Your task to perform on an android device: Clear the cart on amazon.com. Add "dell xps" to the cart on amazon.com Image 0: 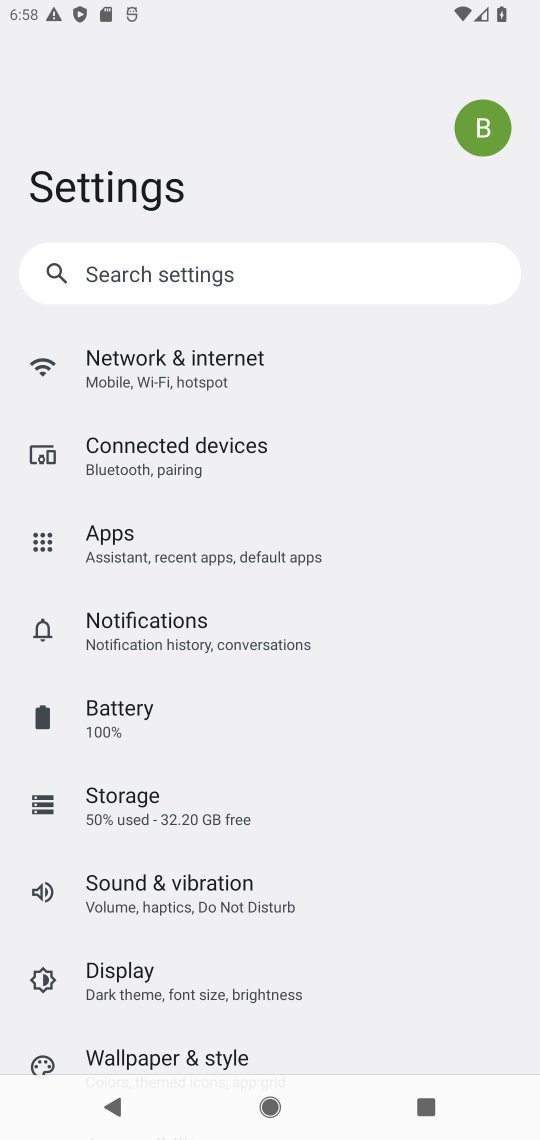
Step 0: press home button
Your task to perform on an android device: Clear the cart on amazon.com. Add "dell xps" to the cart on amazon.com Image 1: 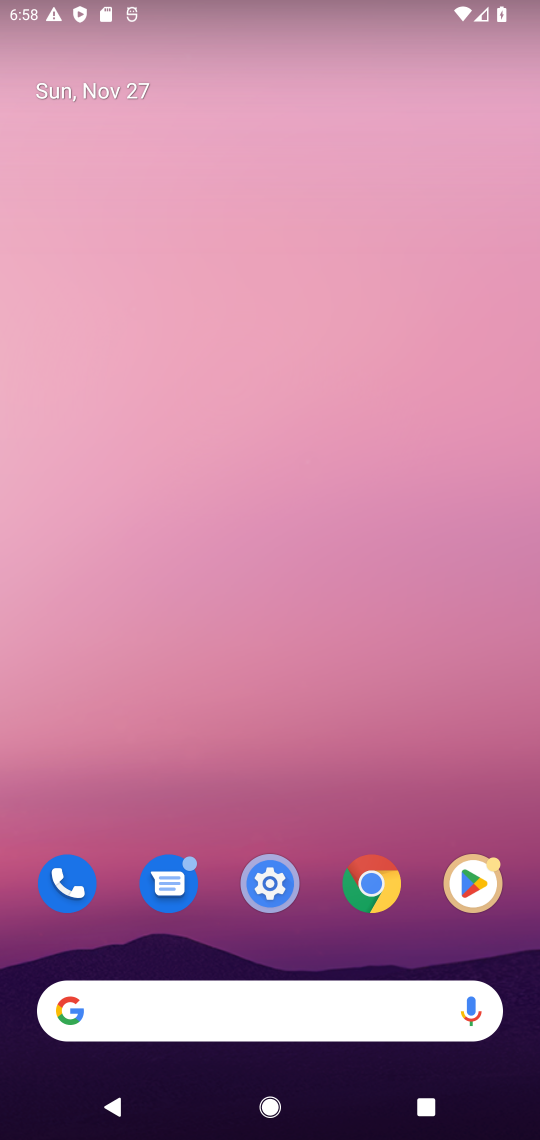
Step 1: click (377, 878)
Your task to perform on an android device: Clear the cart on amazon.com. Add "dell xps" to the cart on amazon.com Image 2: 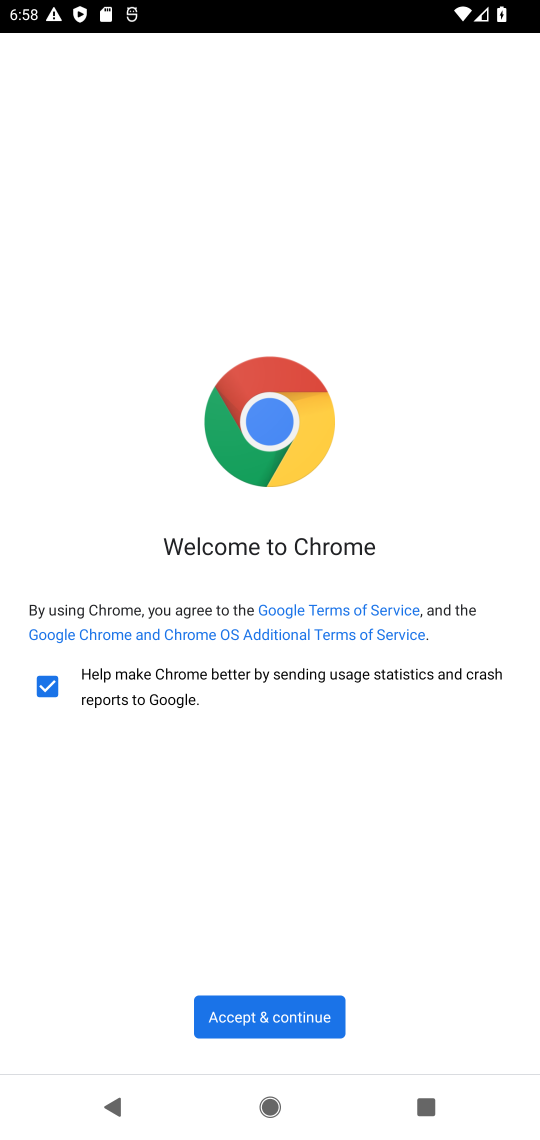
Step 2: click (269, 1037)
Your task to perform on an android device: Clear the cart on amazon.com. Add "dell xps" to the cart on amazon.com Image 3: 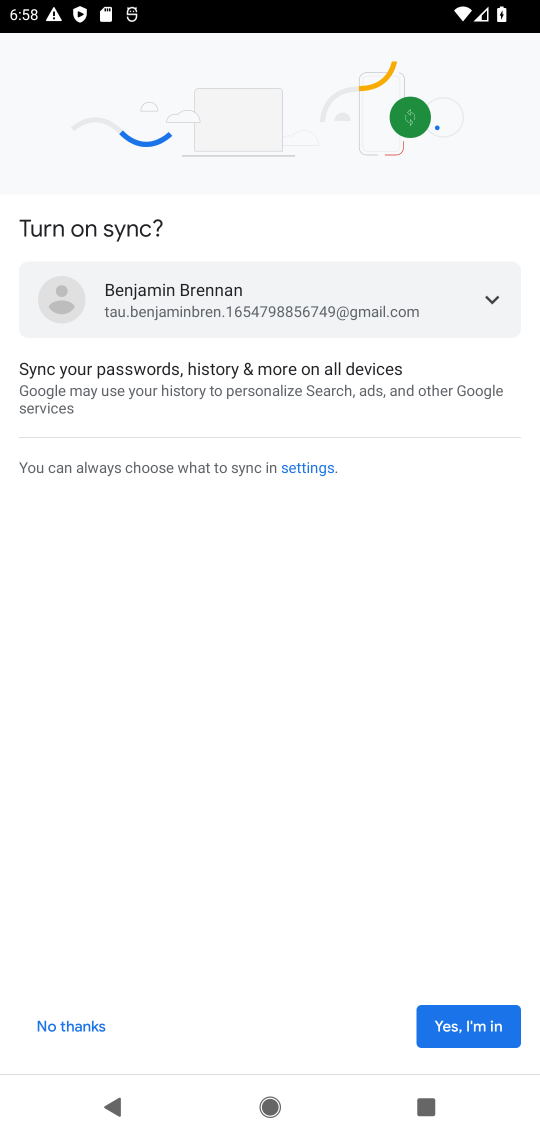
Step 3: click (438, 1021)
Your task to perform on an android device: Clear the cart on amazon.com. Add "dell xps" to the cart on amazon.com Image 4: 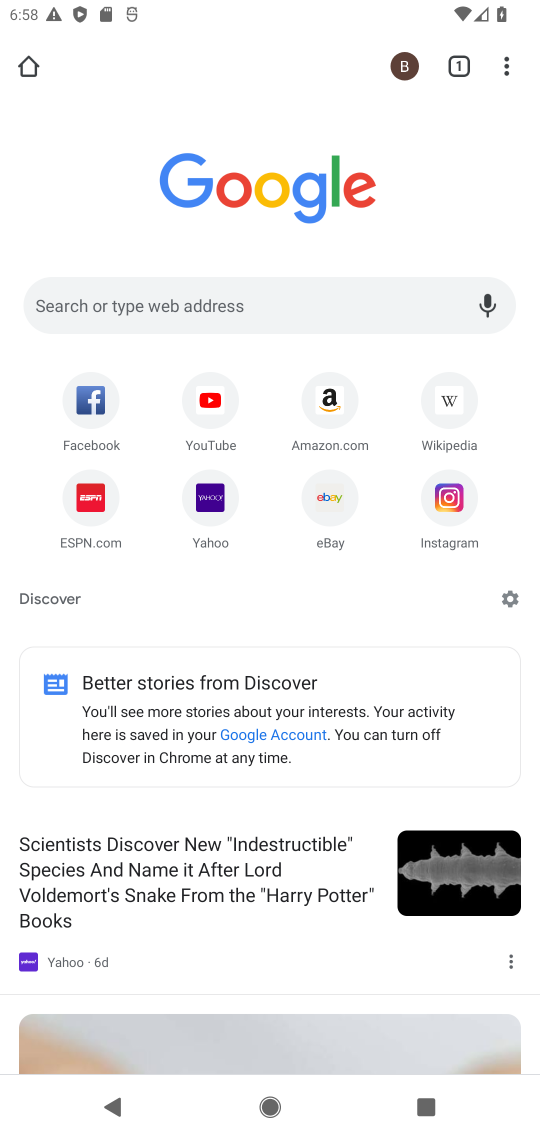
Step 4: click (234, 311)
Your task to perform on an android device: Clear the cart on amazon.com. Add "dell xps" to the cart on amazon.com Image 5: 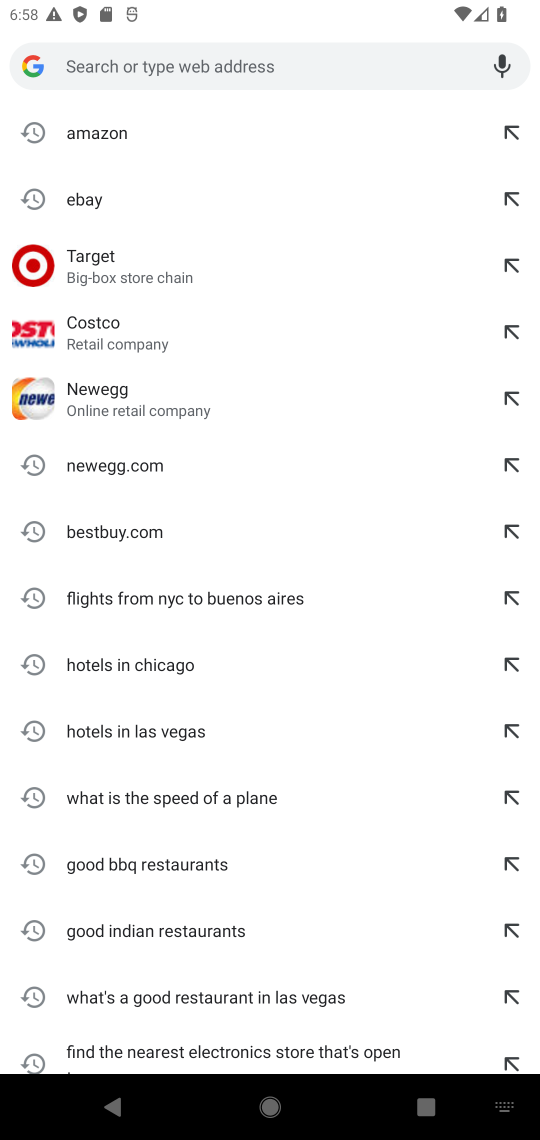
Step 5: type "amazon.com"
Your task to perform on an android device: Clear the cart on amazon.com. Add "dell xps" to the cart on amazon.com Image 6: 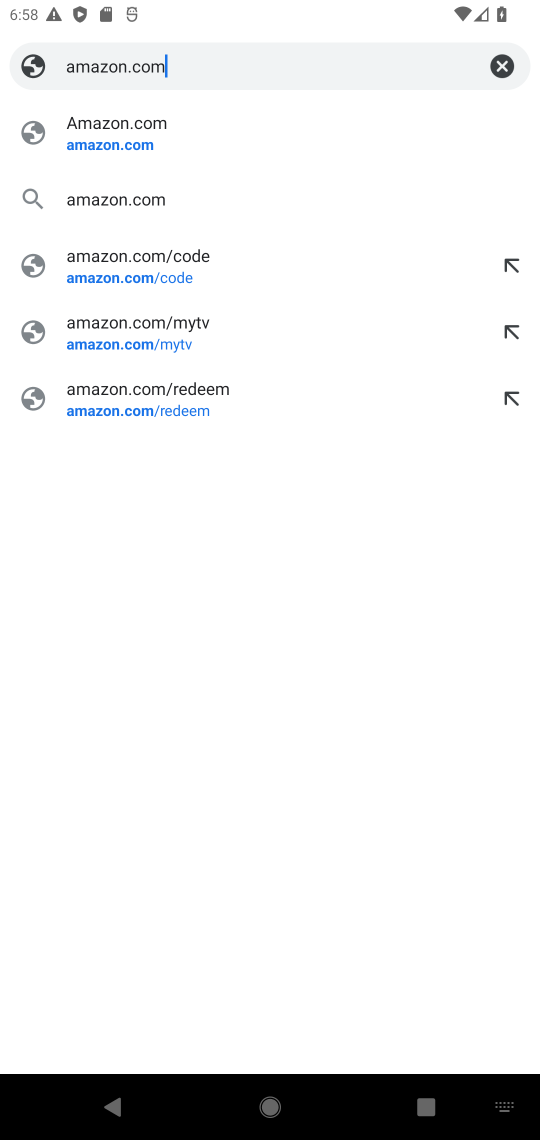
Step 6: click (127, 133)
Your task to perform on an android device: Clear the cart on amazon.com. Add "dell xps" to the cart on amazon.com Image 7: 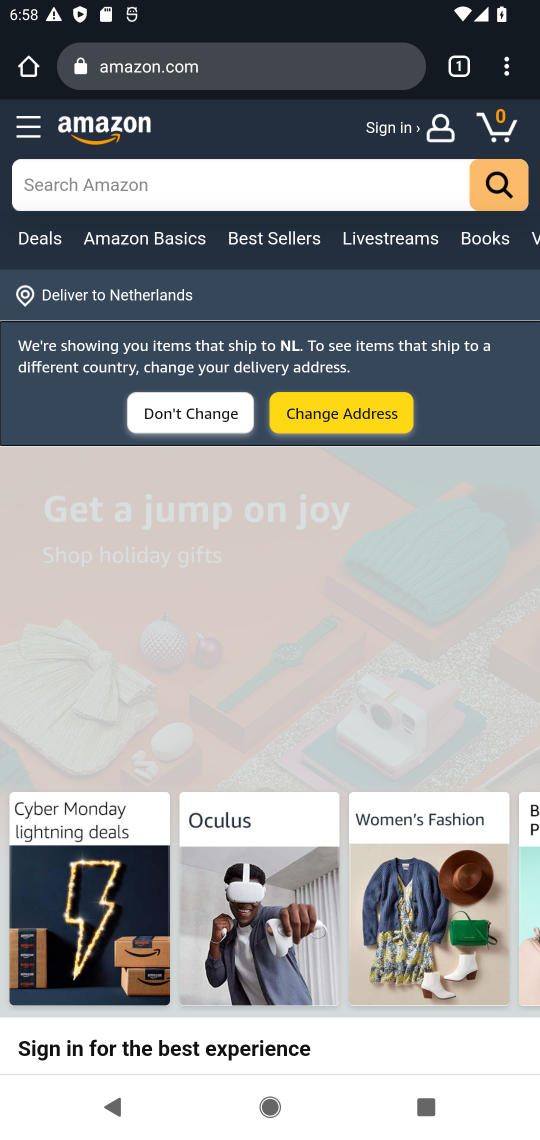
Step 7: click (492, 125)
Your task to perform on an android device: Clear the cart on amazon.com. Add "dell xps" to the cart on amazon.com Image 8: 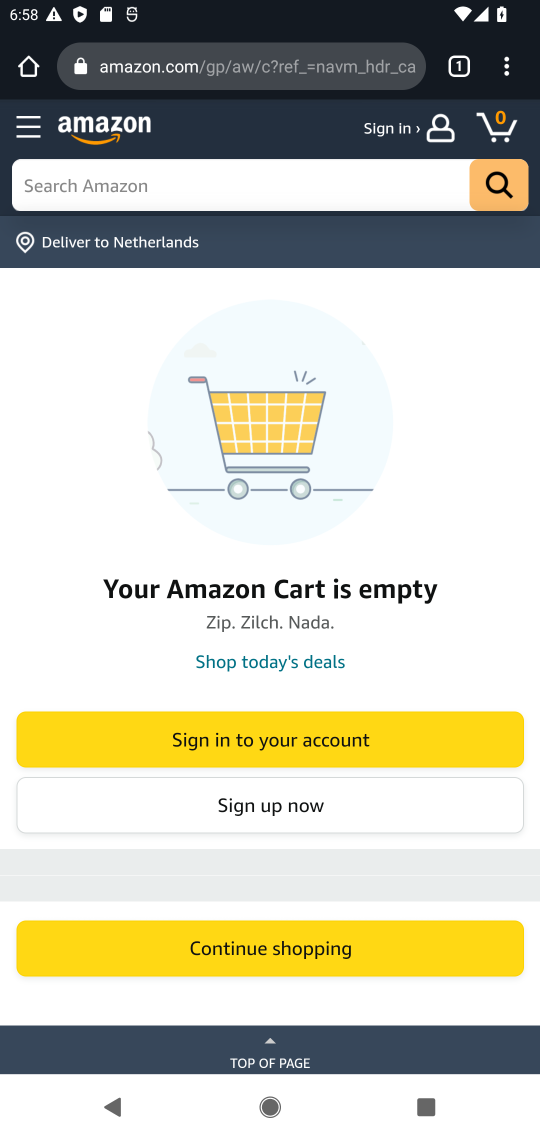
Step 8: click (213, 174)
Your task to perform on an android device: Clear the cart on amazon.com. Add "dell xps" to the cart on amazon.com Image 9: 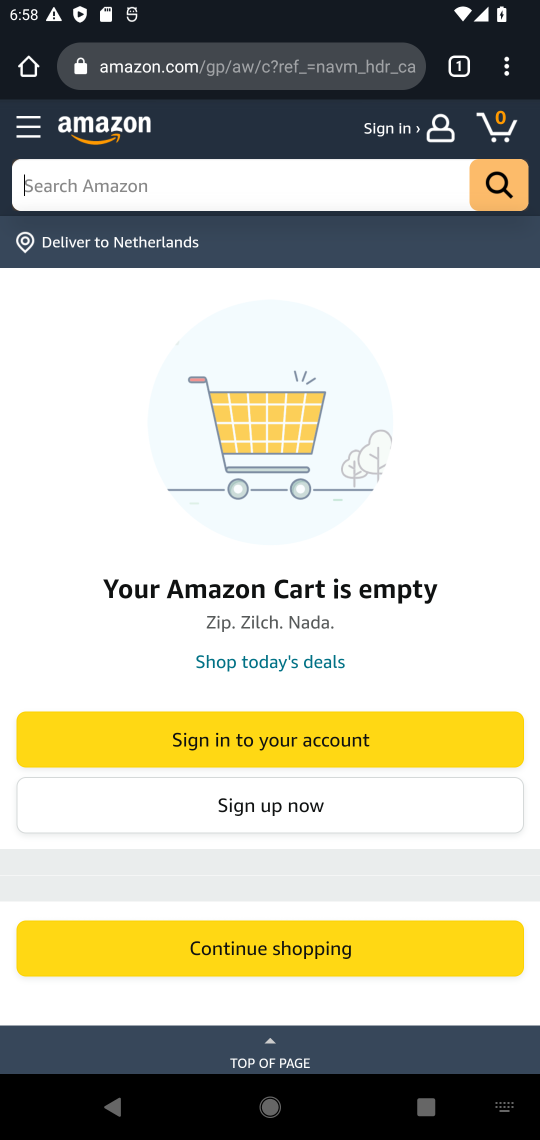
Step 9: type "dell xps"
Your task to perform on an android device: Clear the cart on amazon.com. Add "dell xps" to the cart on amazon.com Image 10: 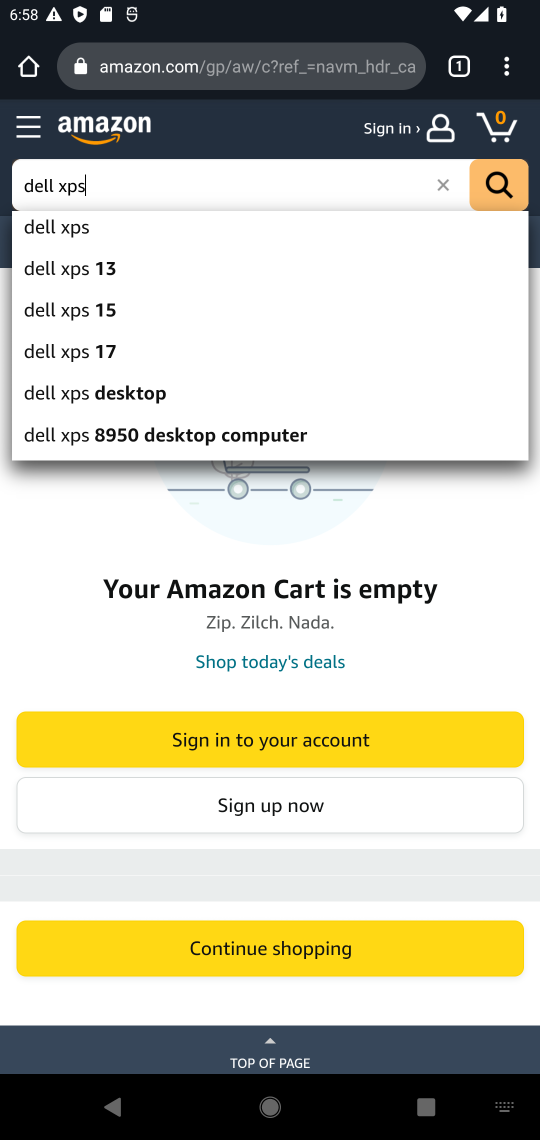
Step 10: click (63, 235)
Your task to perform on an android device: Clear the cart on amazon.com. Add "dell xps" to the cart on amazon.com Image 11: 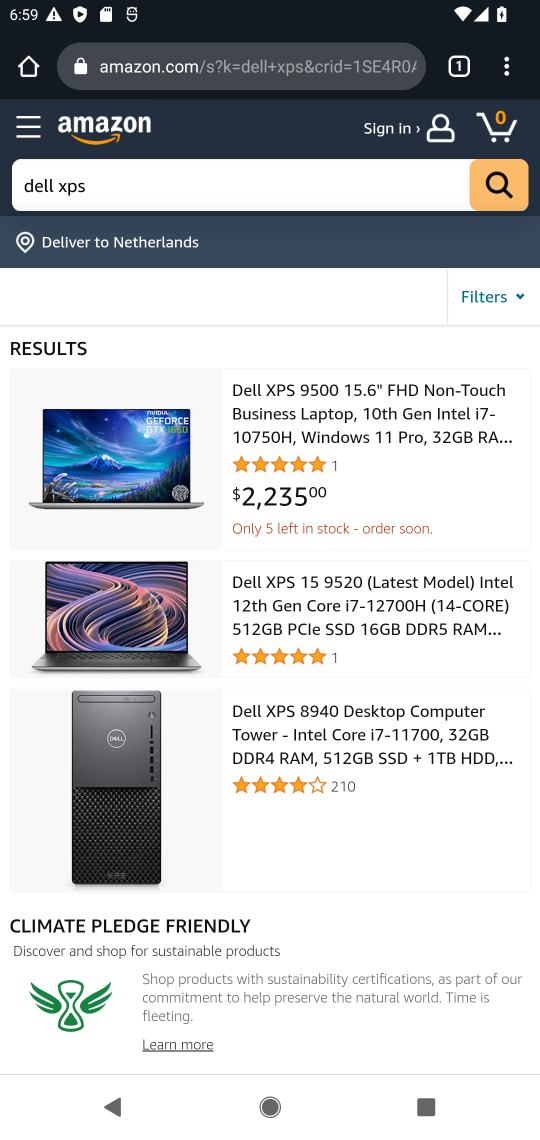
Step 11: click (345, 416)
Your task to perform on an android device: Clear the cart on amazon.com. Add "dell xps" to the cart on amazon.com Image 12: 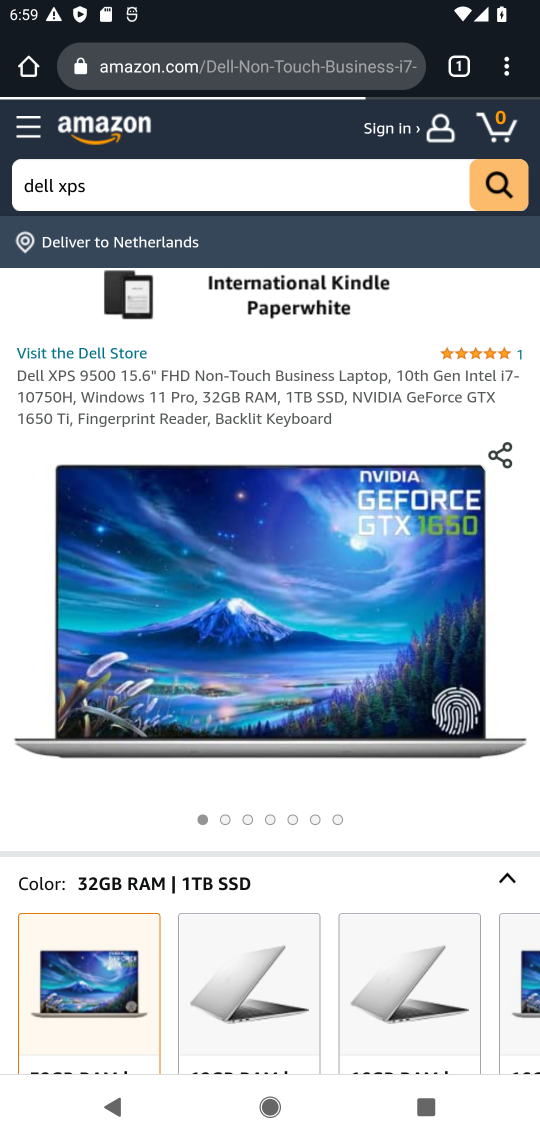
Step 12: drag from (330, 897) to (328, 430)
Your task to perform on an android device: Clear the cart on amazon.com. Add "dell xps" to the cart on amazon.com Image 13: 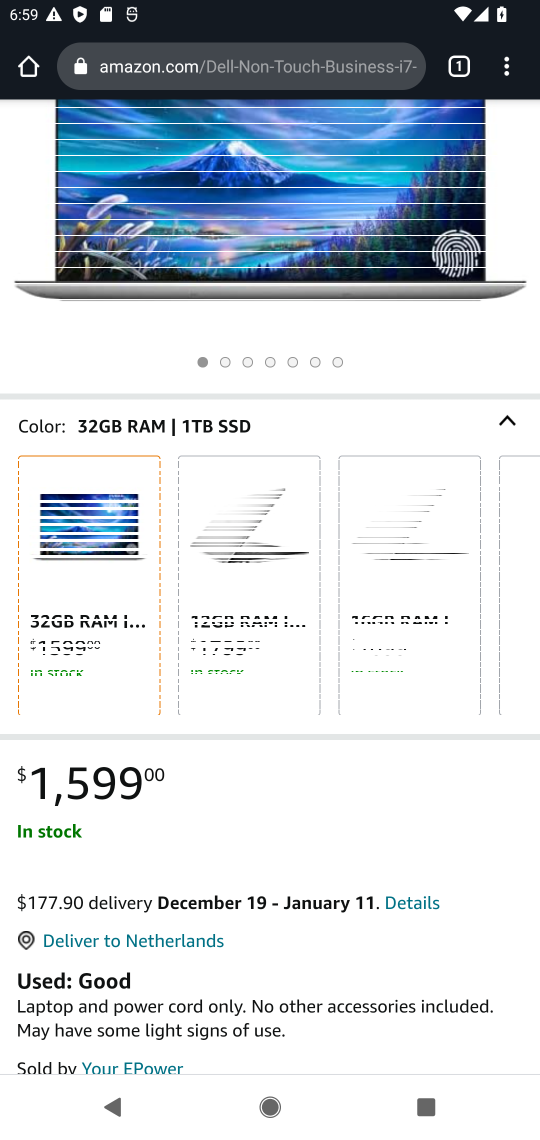
Step 13: drag from (344, 813) to (356, 57)
Your task to perform on an android device: Clear the cart on amazon.com. Add "dell xps" to the cart on amazon.com Image 14: 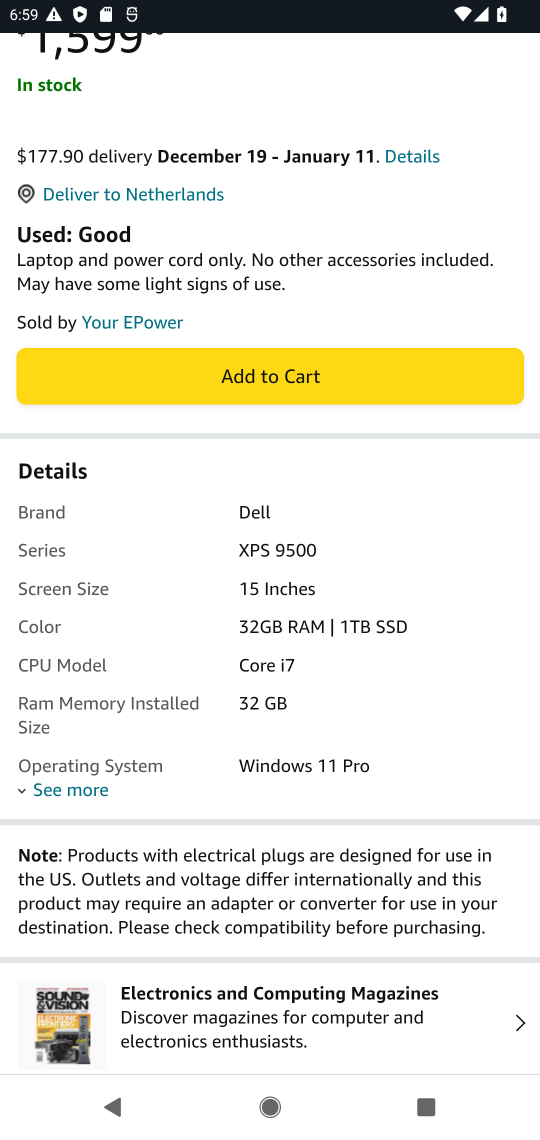
Step 14: click (257, 362)
Your task to perform on an android device: Clear the cart on amazon.com. Add "dell xps" to the cart on amazon.com Image 15: 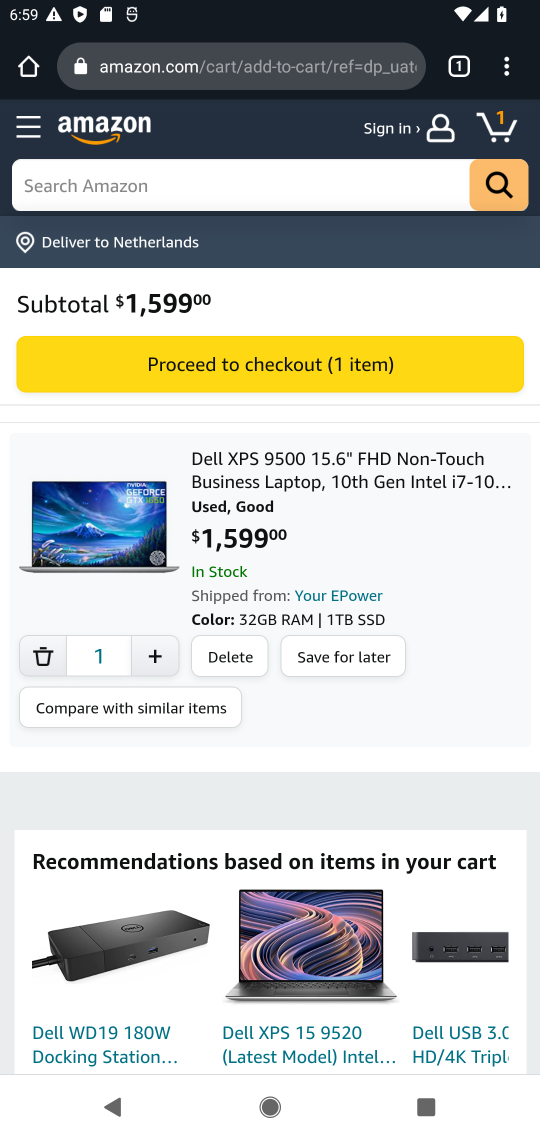
Step 15: task complete